Your task to perform on an android device: Open notification settings Image 0: 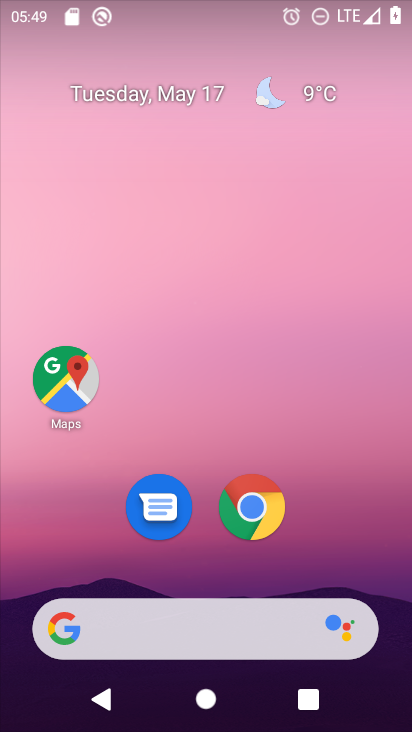
Step 0: drag from (237, 551) to (149, 20)
Your task to perform on an android device: Open notification settings Image 1: 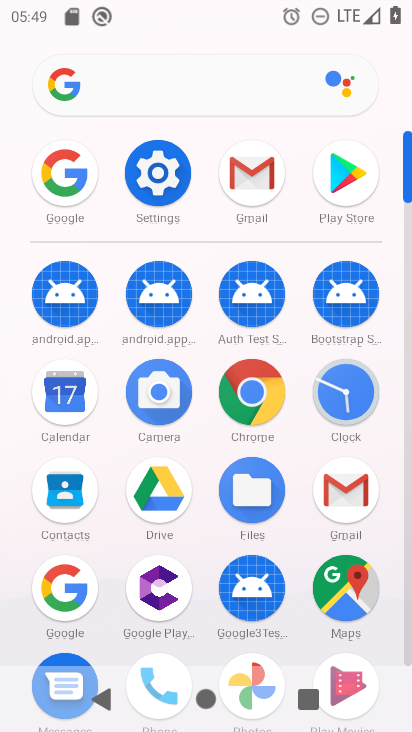
Step 1: click (155, 183)
Your task to perform on an android device: Open notification settings Image 2: 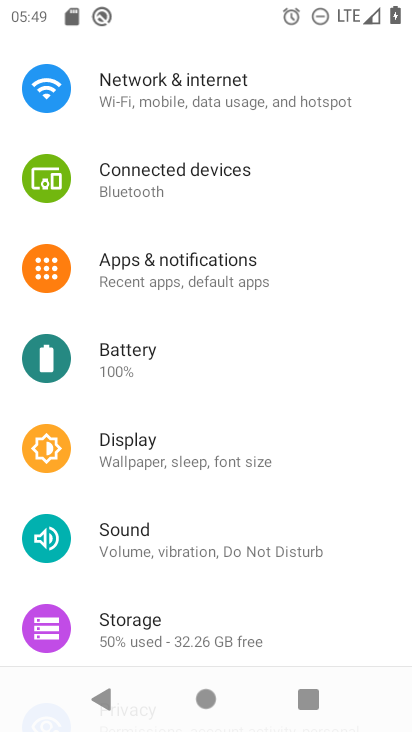
Step 2: click (237, 270)
Your task to perform on an android device: Open notification settings Image 3: 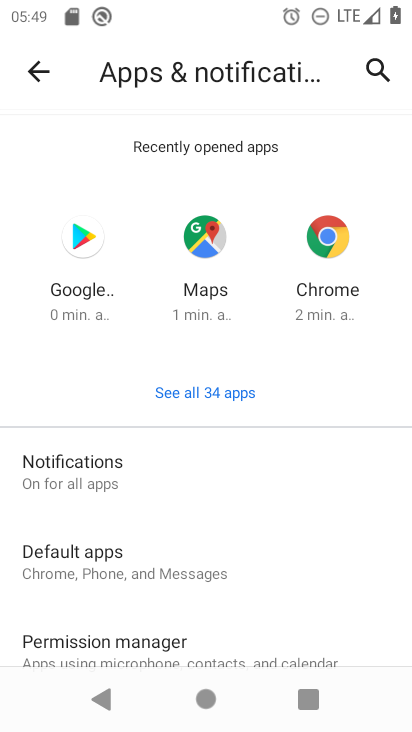
Step 3: task complete